Your task to perform on an android device: Open network settings Image 0: 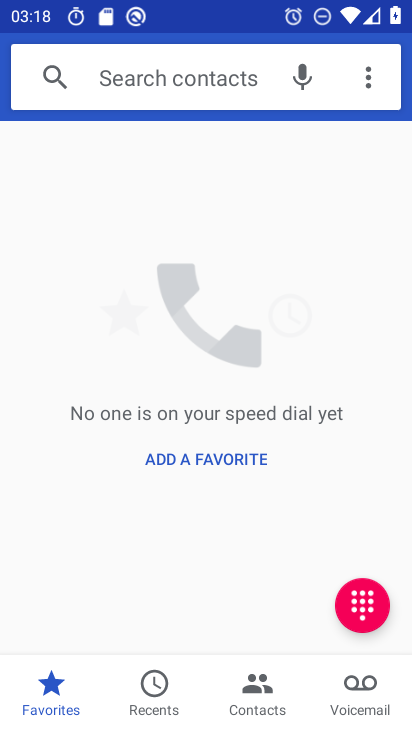
Step 0: press home button
Your task to perform on an android device: Open network settings Image 1: 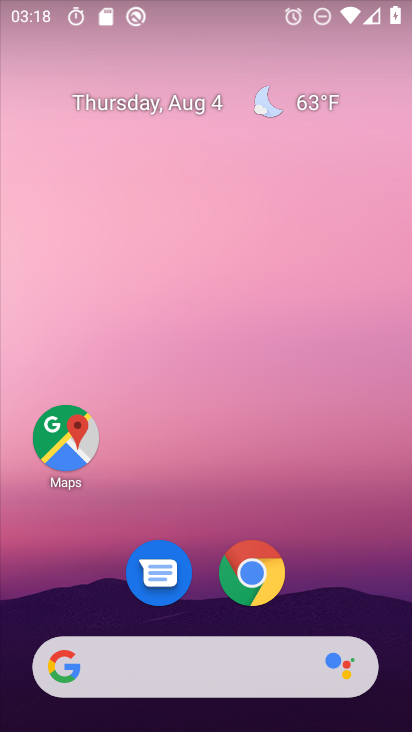
Step 1: drag from (359, 555) to (276, 74)
Your task to perform on an android device: Open network settings Image 2: 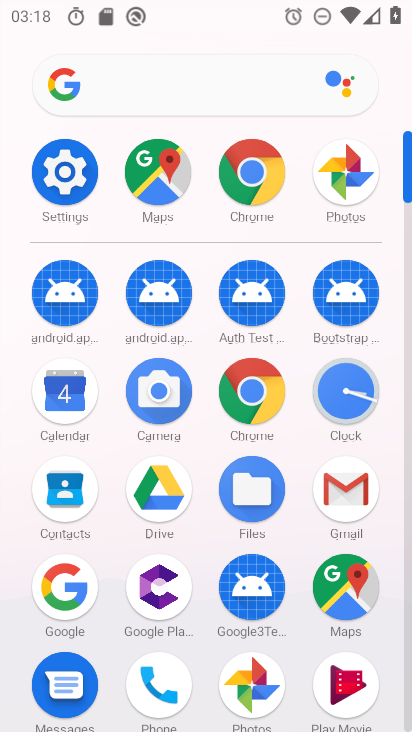
Step 2: click (67, 161)
Your task to perform on an android device: Open network settings Image 3: 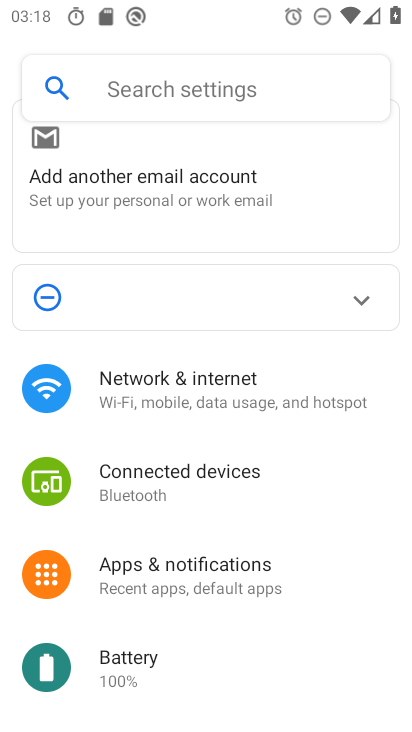
Step 3: click (205, 395)
Your task to perform on an android device: Open network settings Image 4: 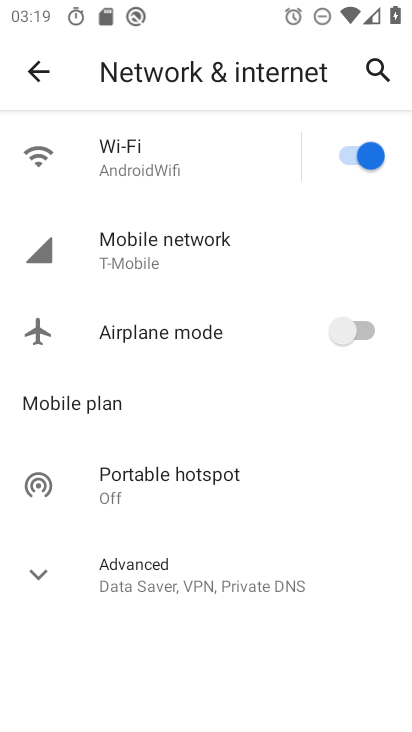
Step 4: task complete